Your task to perform on an android device: turn on notifications settings in the gmail app Image 0: 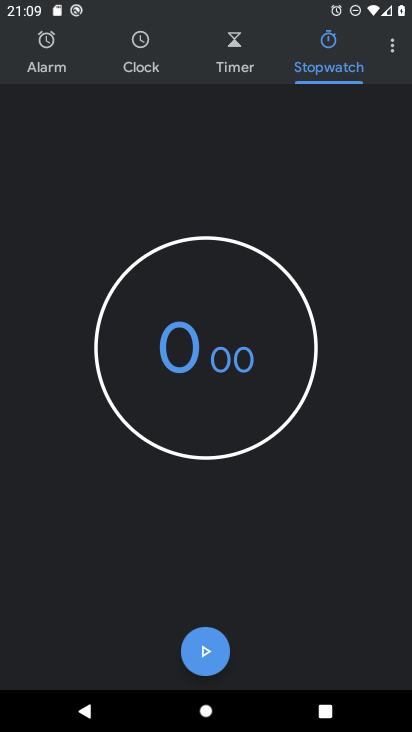
Step 0: press home button
Your task to perform on an android device: turn on notifications settings in the gmail app Image 1: 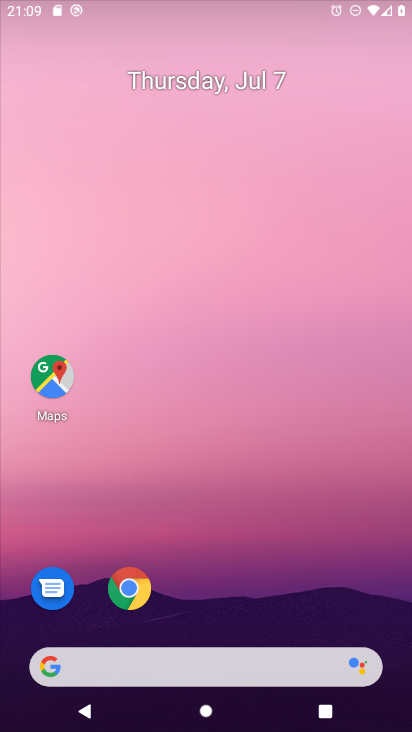
Step 1: drag from (217, 568) to (277, 171)
Your task to perform on an android device: turn on notifications settings in the gmail app Image 2: 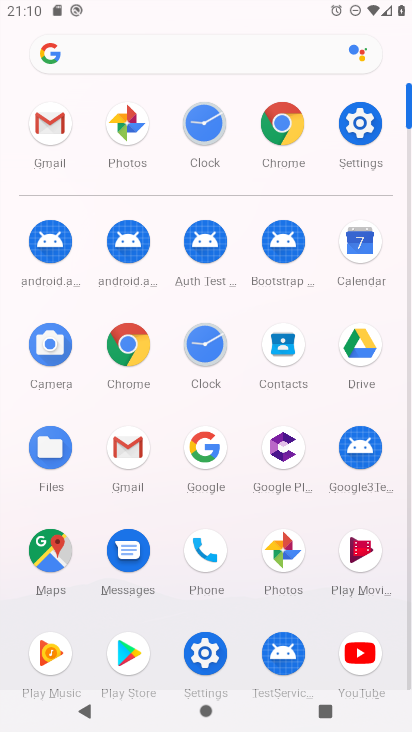
Step 2: click (120, 452)
Your task to perform on an android device: turn on notifications settings in the gmail app Image 3: 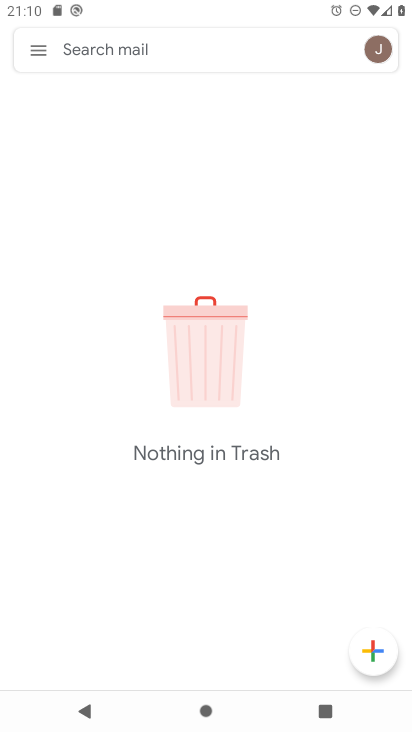
Step 3: click (56, 52)
Your task to perform on an android device: turn on notifications settings in the gmail app Image 4: 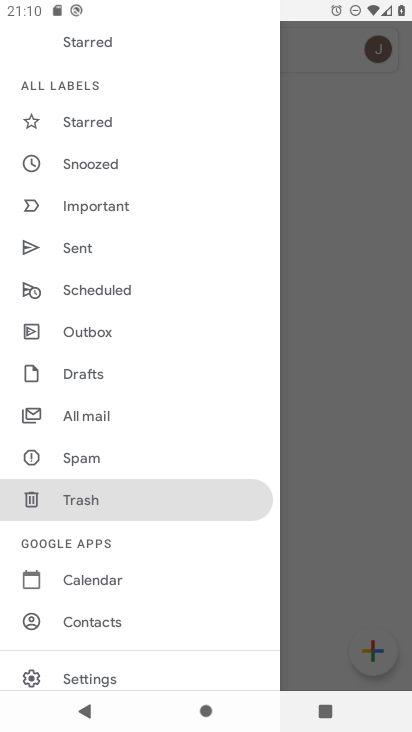
Step 4: drag from (127, 599) to (190, 292)
Your task to perform on an android device: turn on notifications settings in the gmail app Image 5: 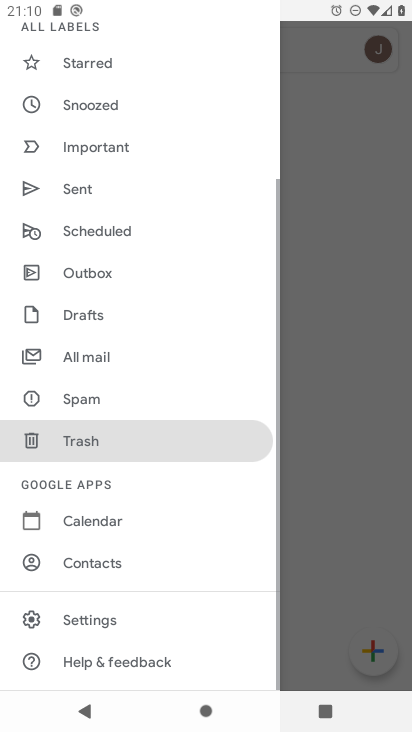
Step 5: click (125, 631)
Your task to perform on an android device: turn on notifications settings in the gmail app Image 6: 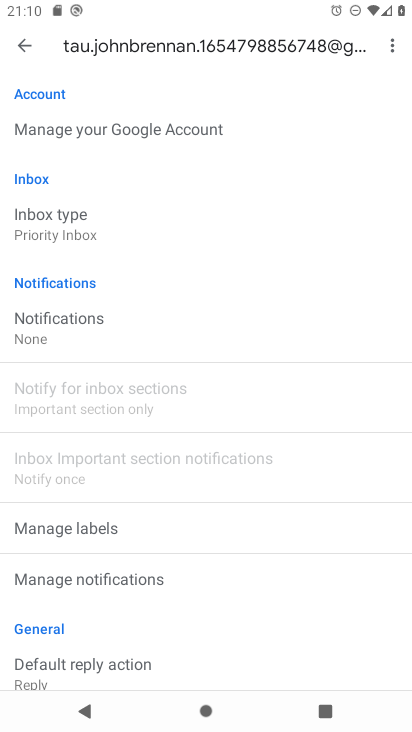
Step 6: drag from (156, 582) to (209, 202)
Your task to perform on an android device: turn on notifications settings in the gmail app Image 7: 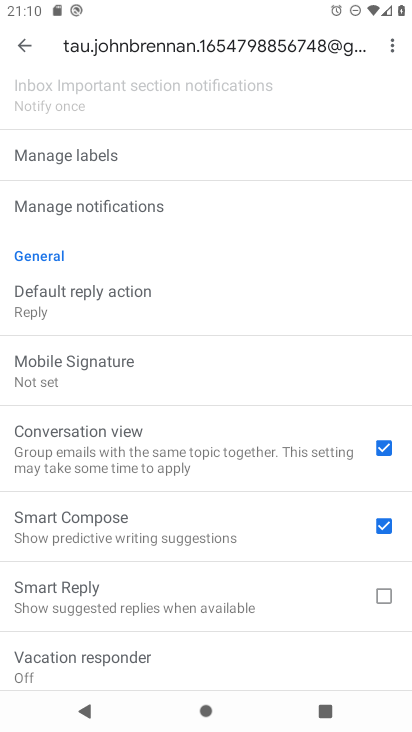
Step 7: drag from (148, 578) to (247, 132)
Your task to perform on an android device: turn on notifications settings in the gmail app Image 8: 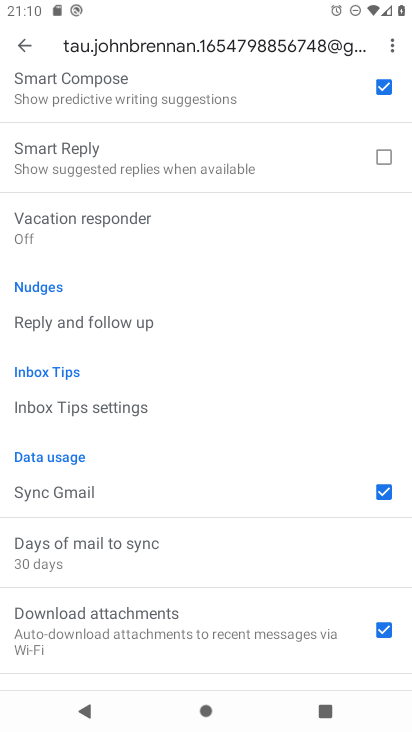
Step 8: drag from (82, 118) to (144, 718)
Your task to perform on an android device: turn on notifications settings in the gmail app Image 9: 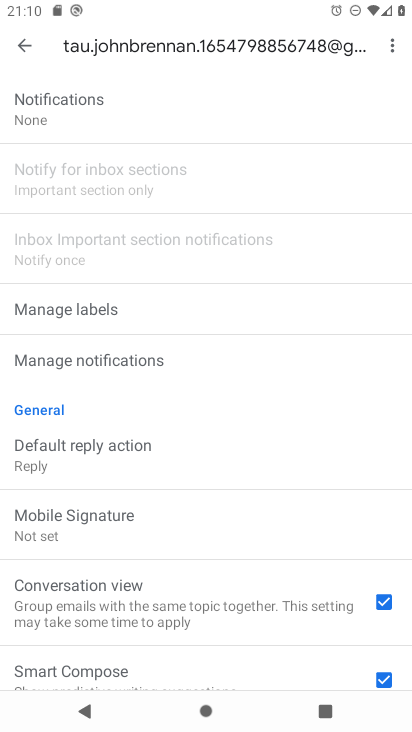
Step 9: click (157, 128)
Your task to perform on an android device: turn on notifications settings in the gmail app Image 10: 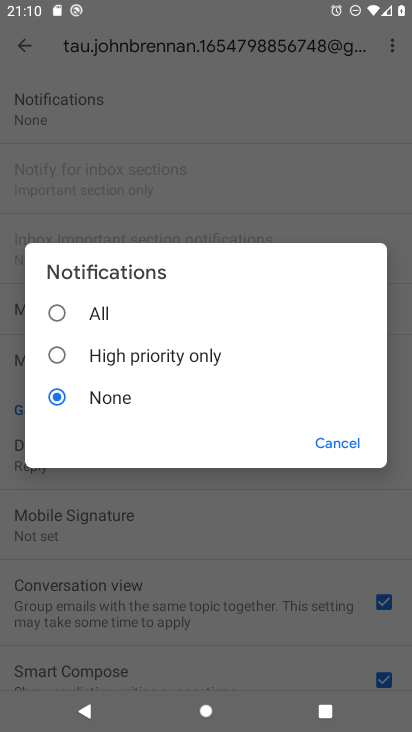
Step 10: click (89, 312)
Your task to perform on an android device: turn on notifications settings in the gmail app Image 11: 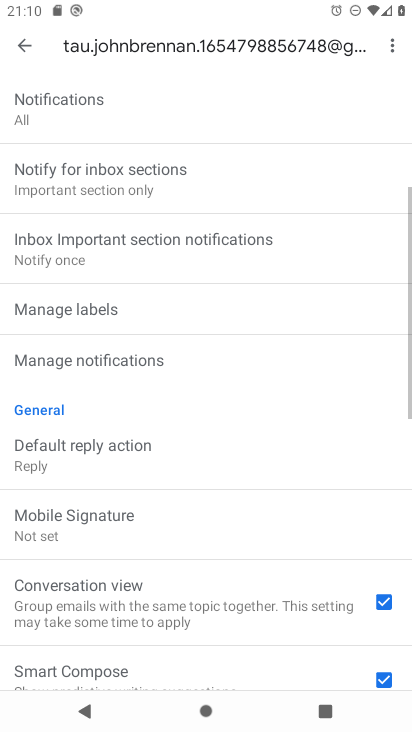
Step 11: task complete